Your task to perform on an android device: What's the price of the new iPhone on eBay? Image 0: 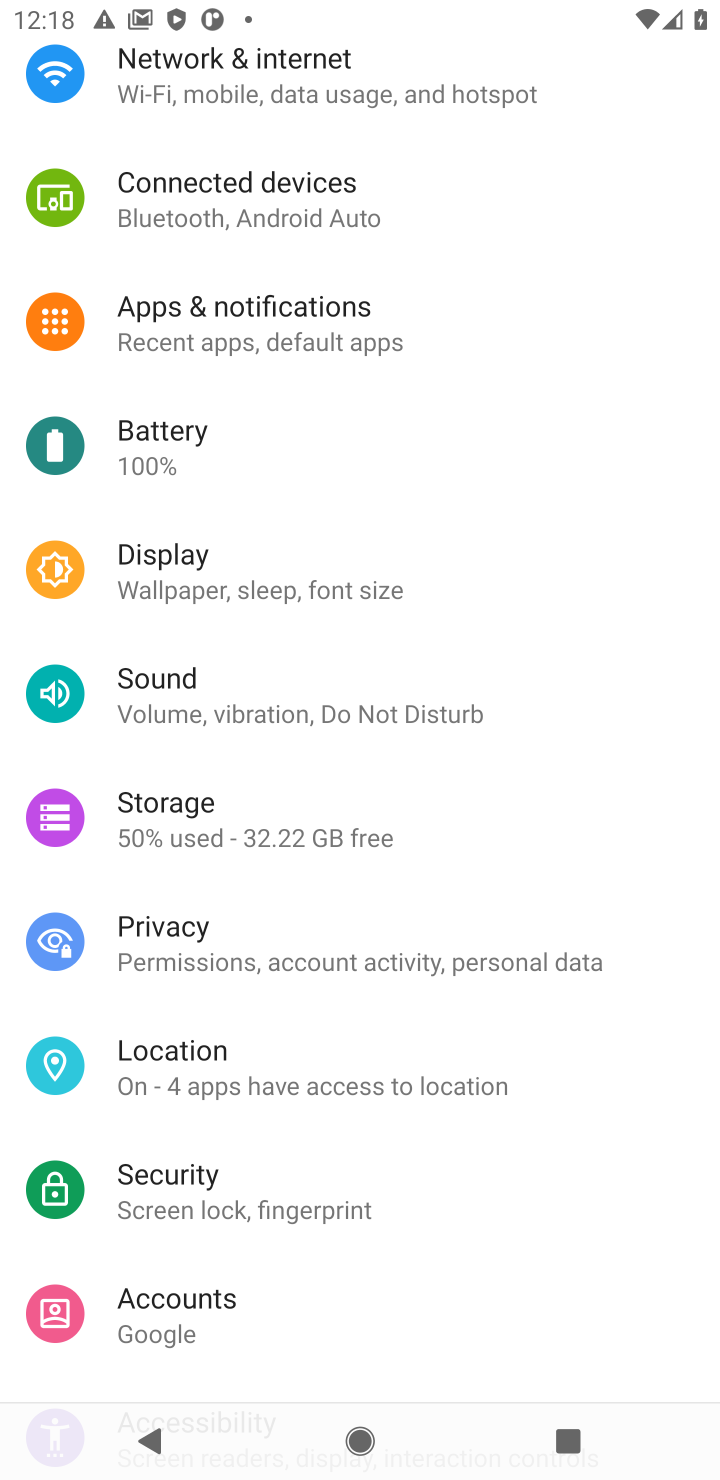
Step 0: press home button
Your task to perform on an android device: What's the price of the new iPhone on eBay? Image 1: 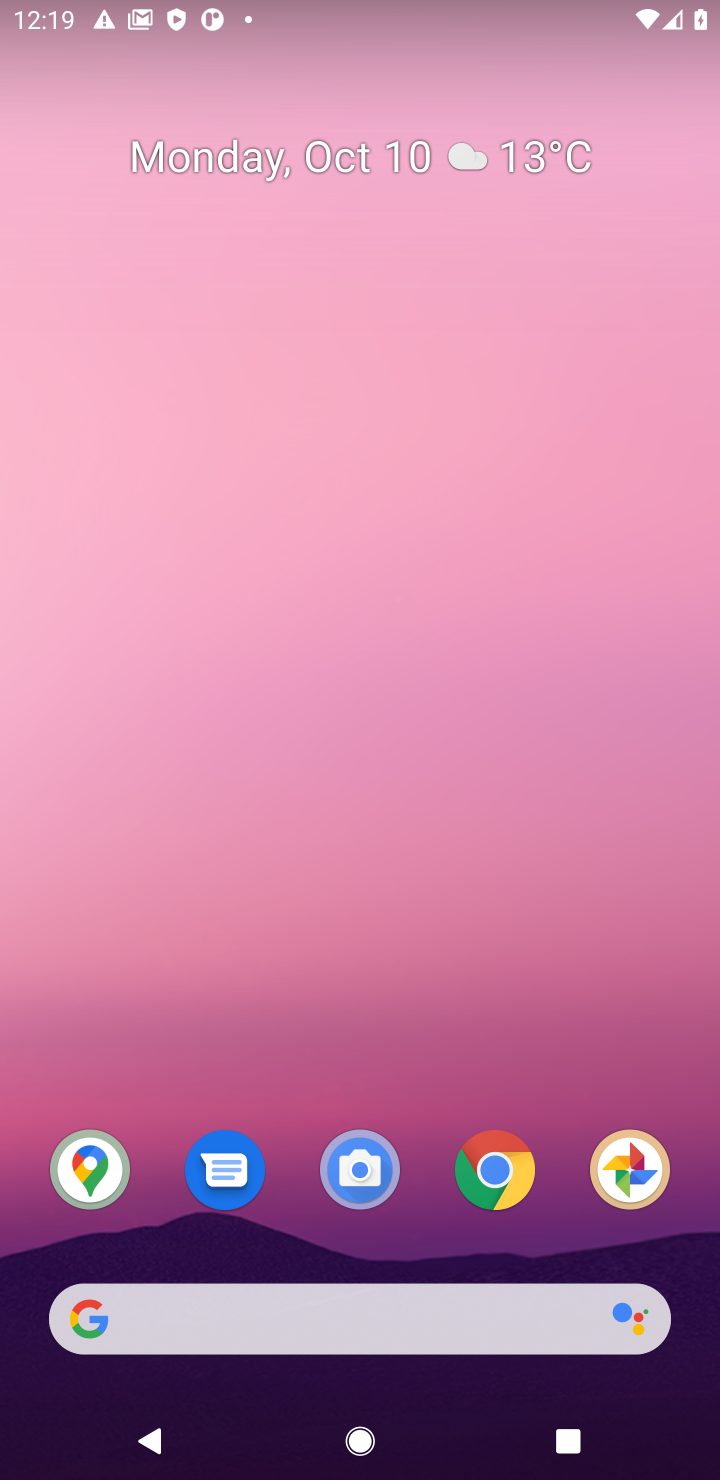
Step 1: click (498, 1171)
Your task to perform on an android device: What's the price of the new iPhone on eBay? Image 2: 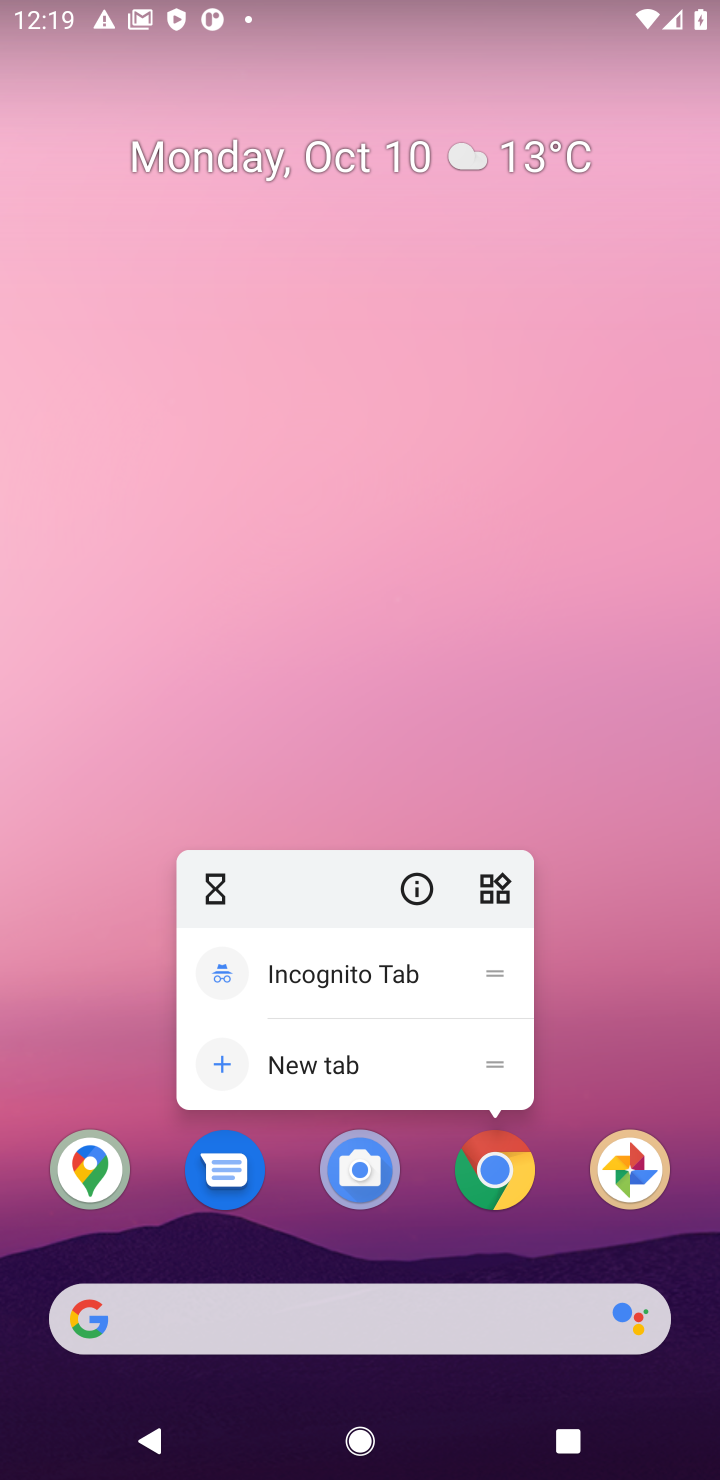
Step 2: click (498, 1171)
Your task to perform on an android device: What's the price of the new iPhone on eBay? Image 3: 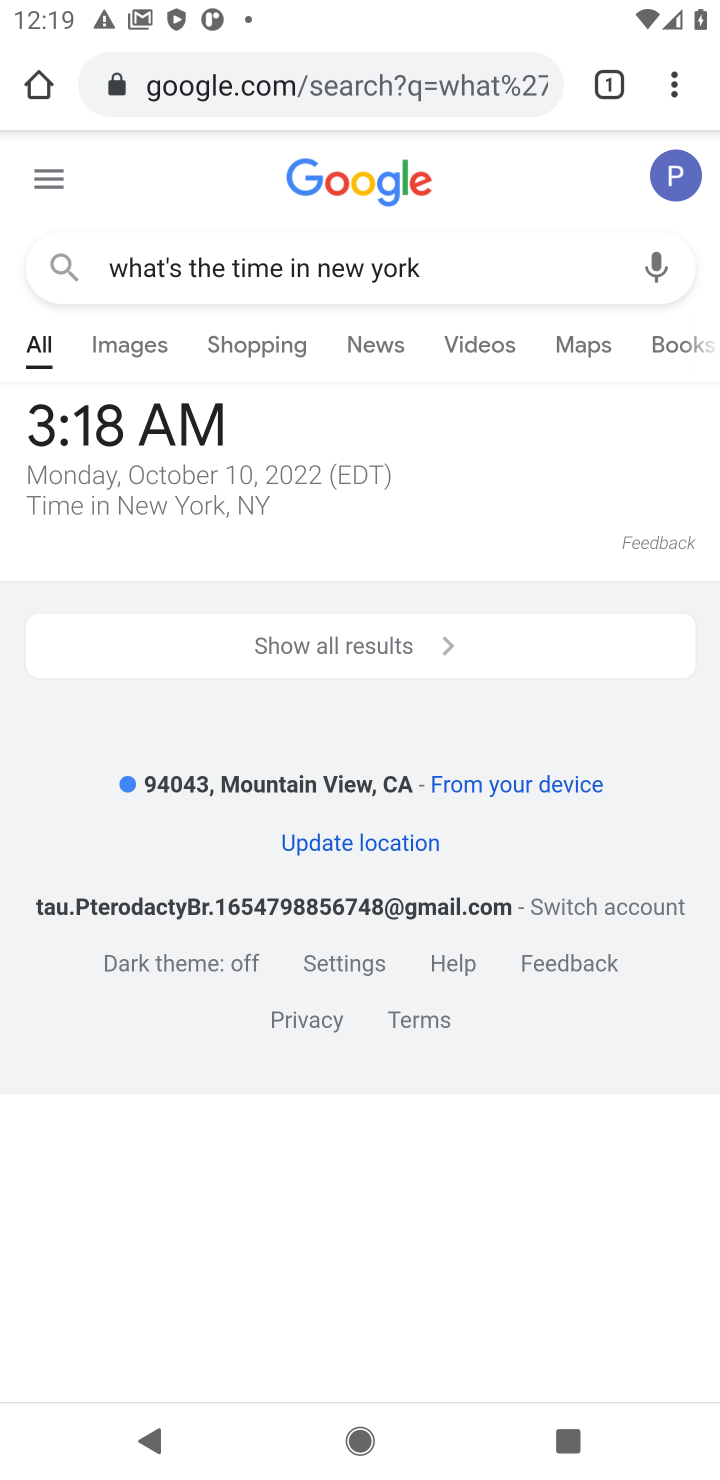
Step 3: click (424, 85)
Your task to perform on an android device: What's the price of the new iPhone on eBay? Image 4: 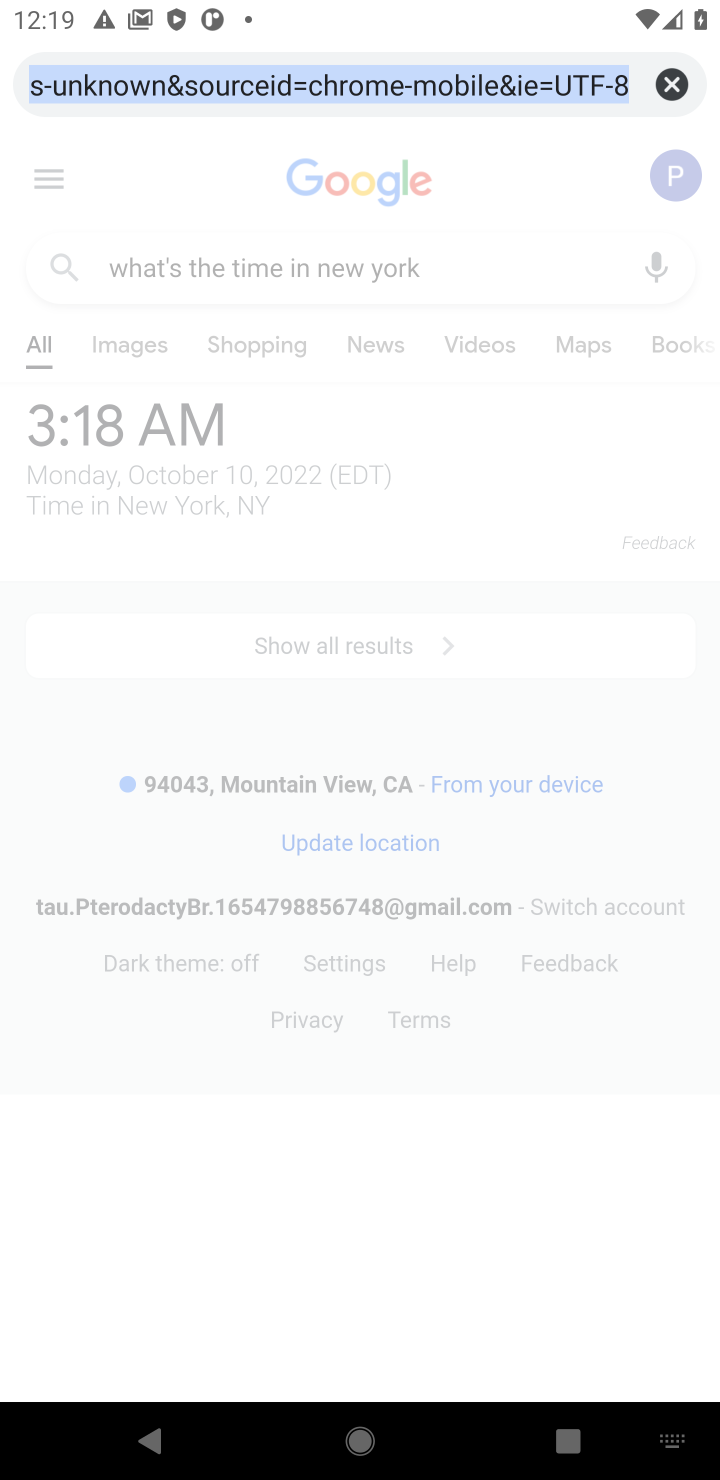
Step 4: click (673, 86)
Your task to perform on an android device: What's the price of the new iPhone on eBay? Image 5: 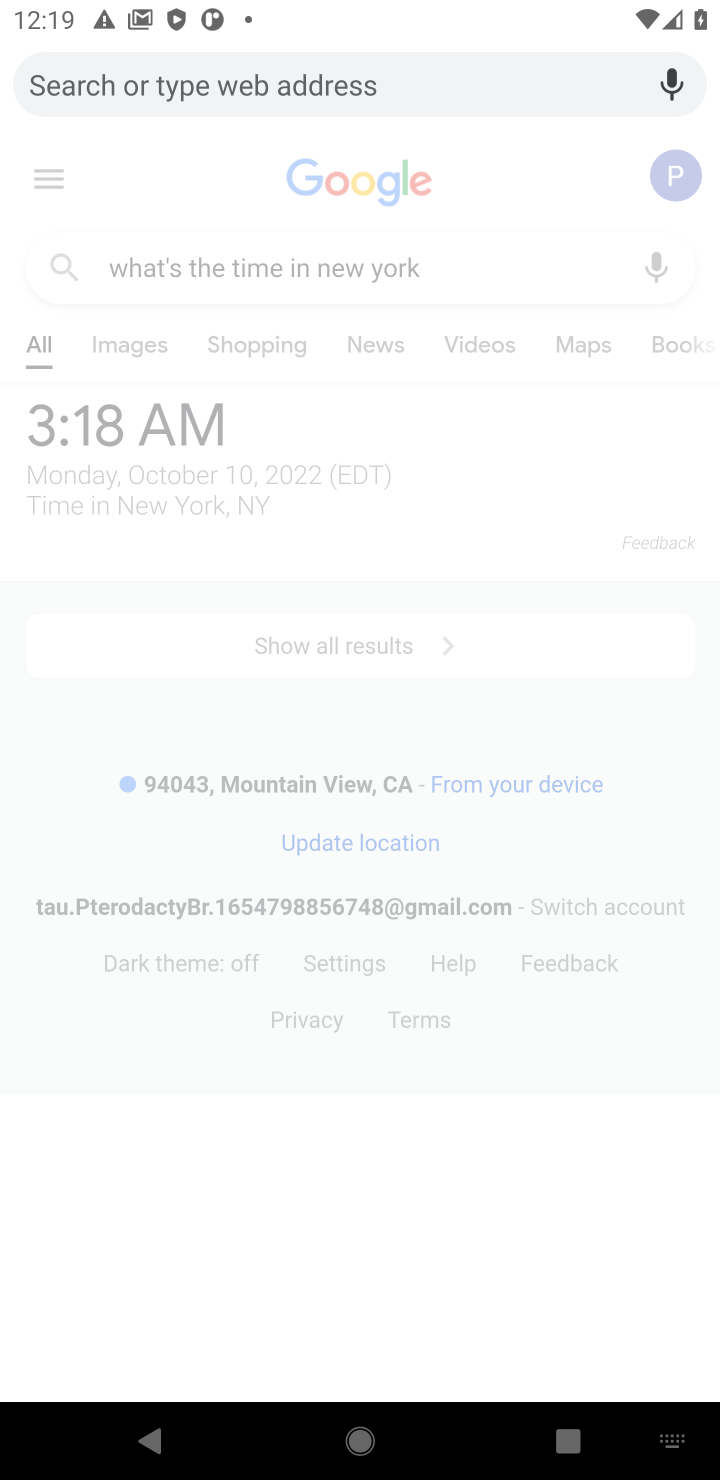
Step 5: type "eBay"
Your task to perform on an android device: What's the price of the new iPhone on eBay? Image 6: 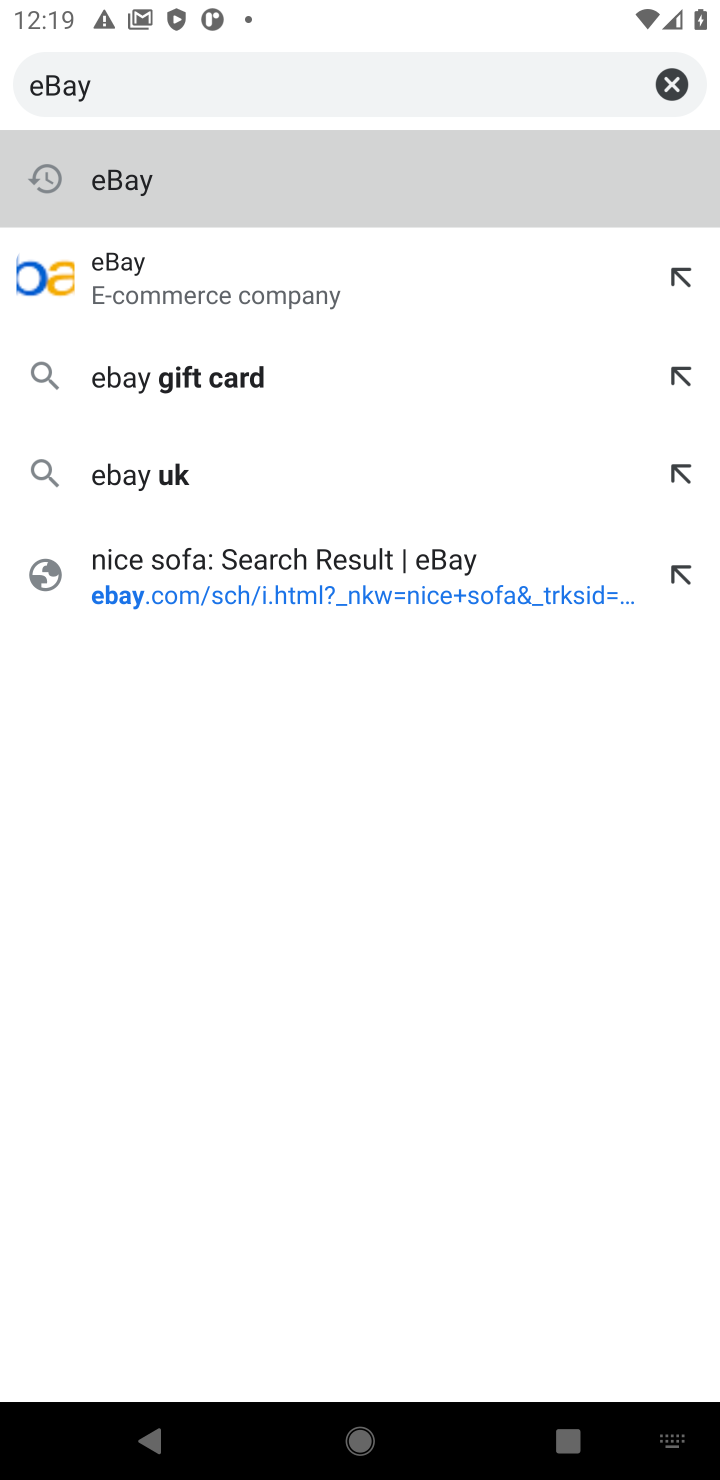
Step 6: click (169, 172)
Your task to perform on an android device: What's the price of the new iPhone on eBay? Image 7: 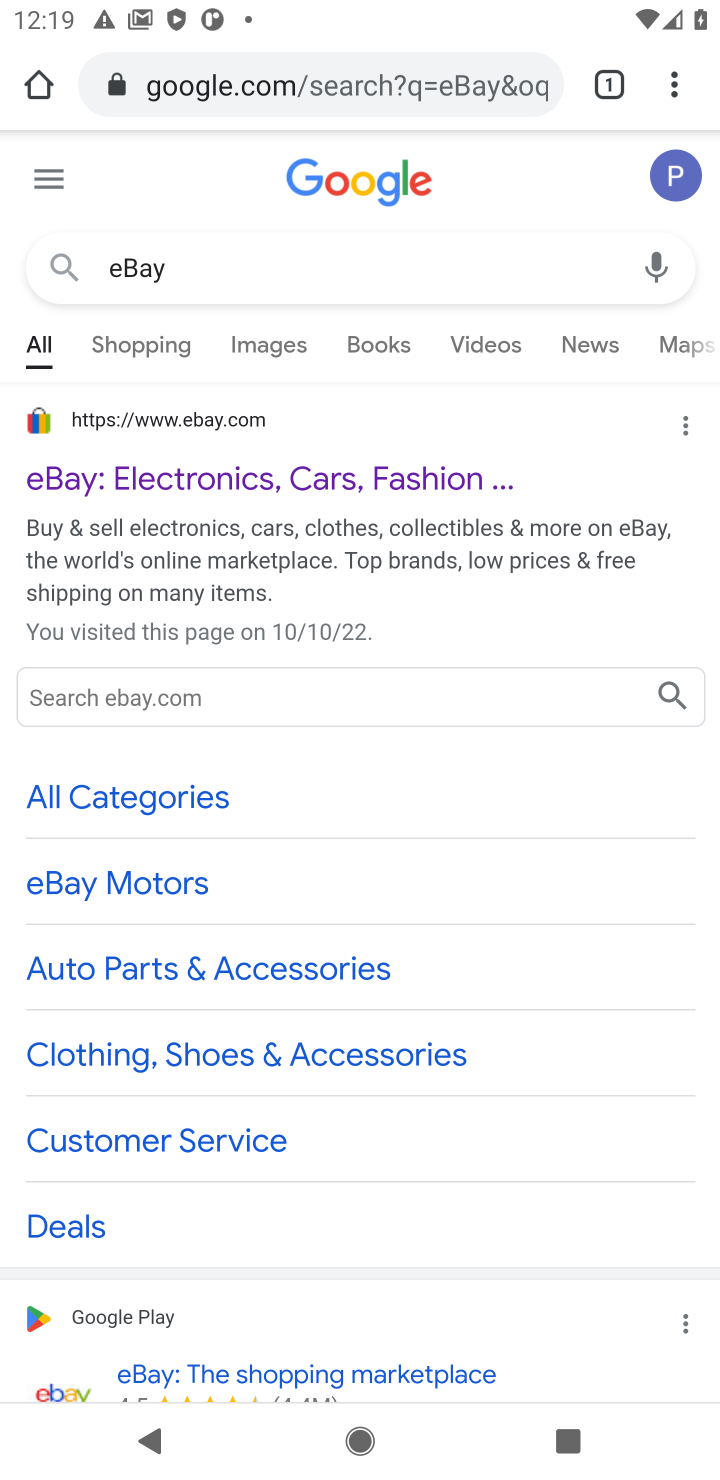
Step 7: click (255, 474)
Your task to perform on an android device: What's the price of the new iPhone on eBay? Image 8: 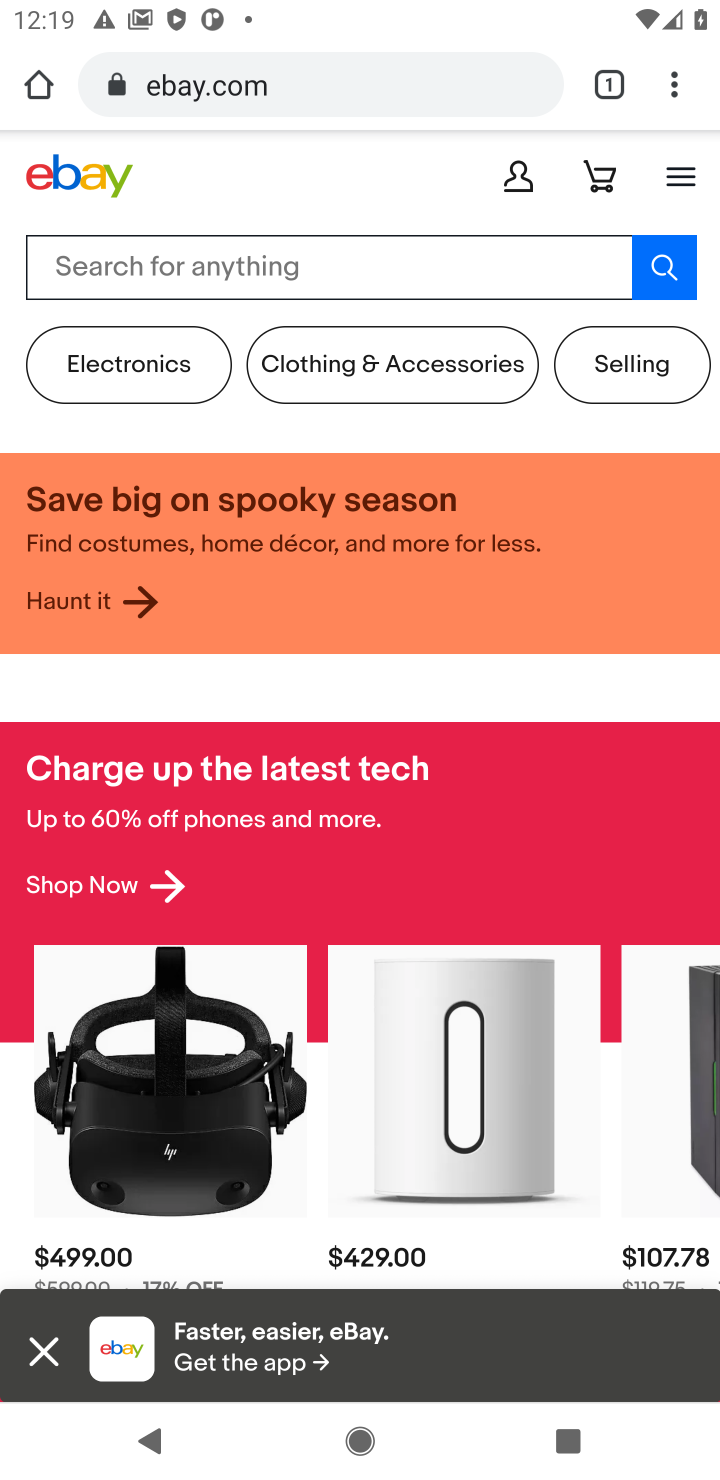
Step 8: click (254, 269)
Your task to perform on an android device: What's the price of the new iPhone on eBay? Image 9: 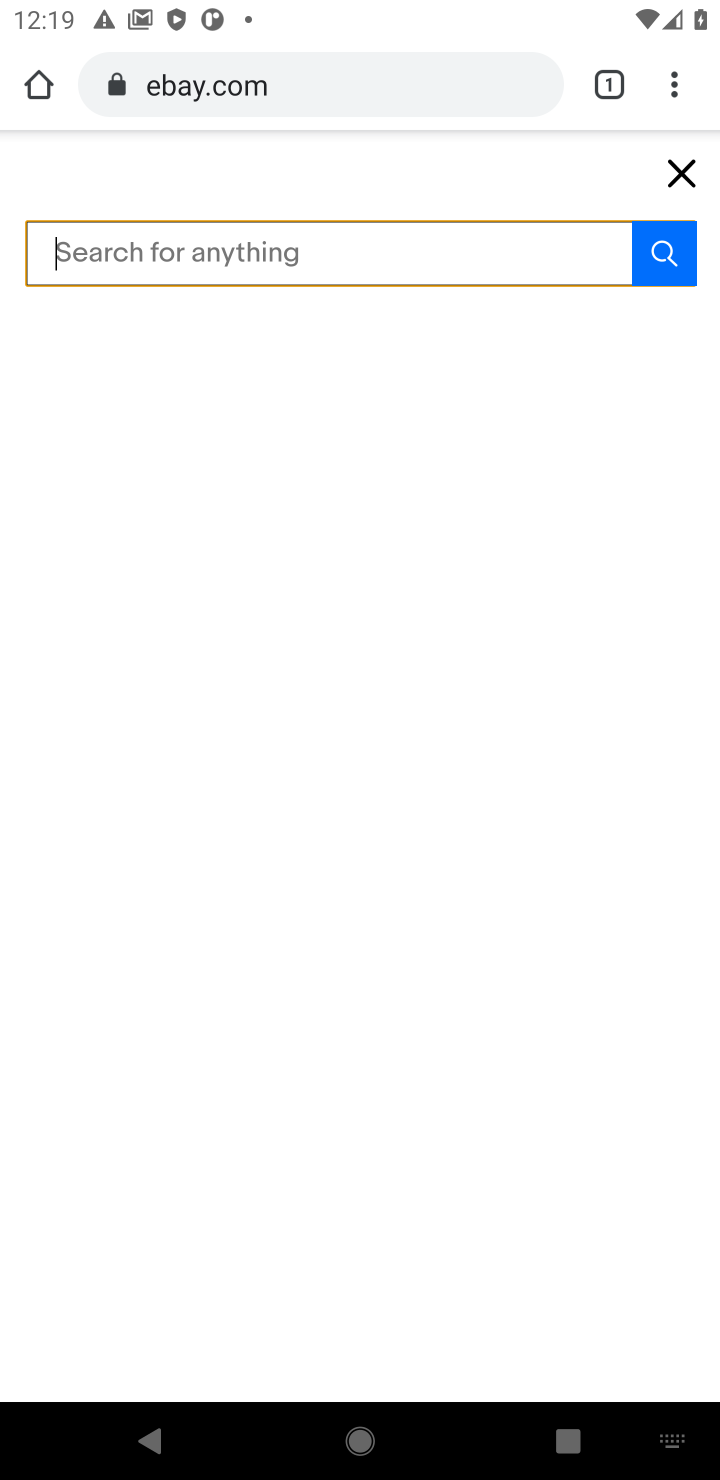
Step 9: type "new iphone"
Your task to perform on an android device: What's the price of the new iPhone on eBay? Image 10: 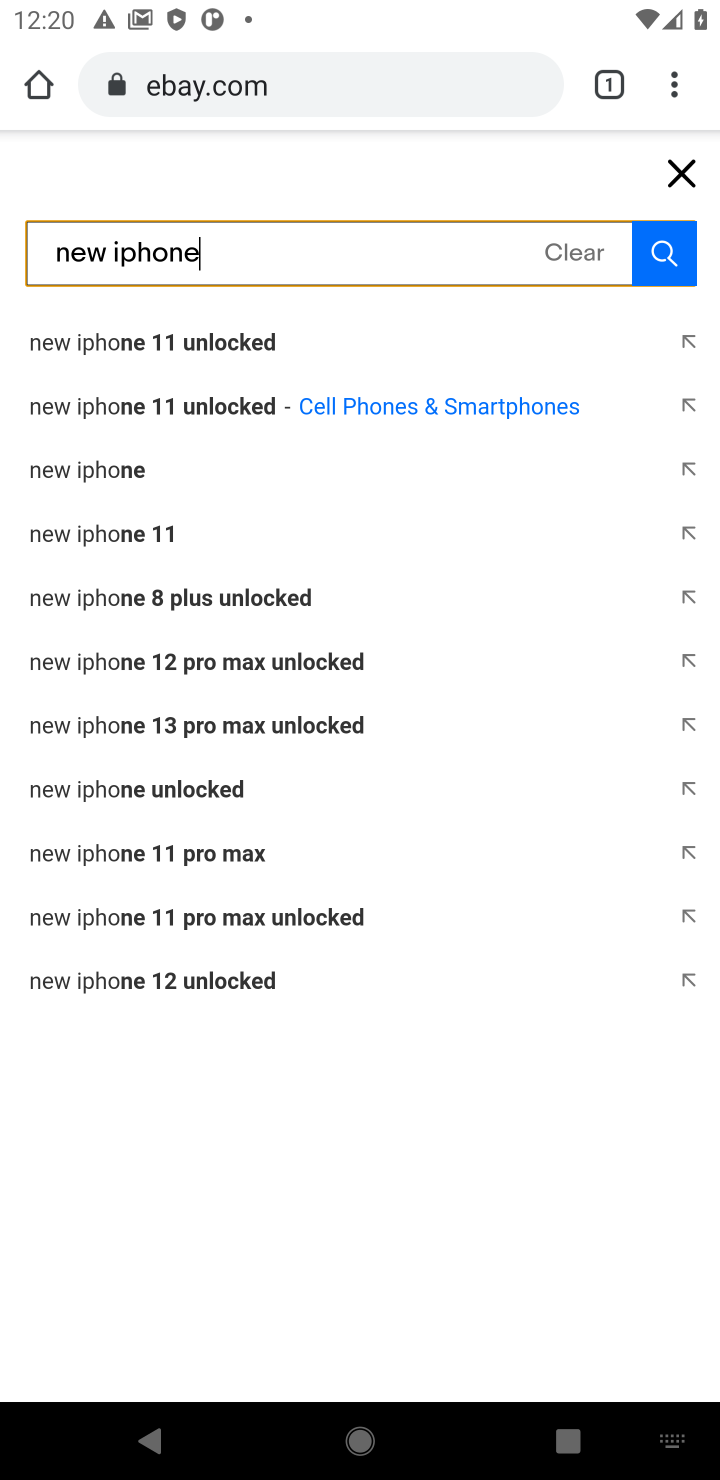
Step 10: click (651, 264)
Your task to perform on an android device: What's the price of the new iPhone on eBay? Image 11: 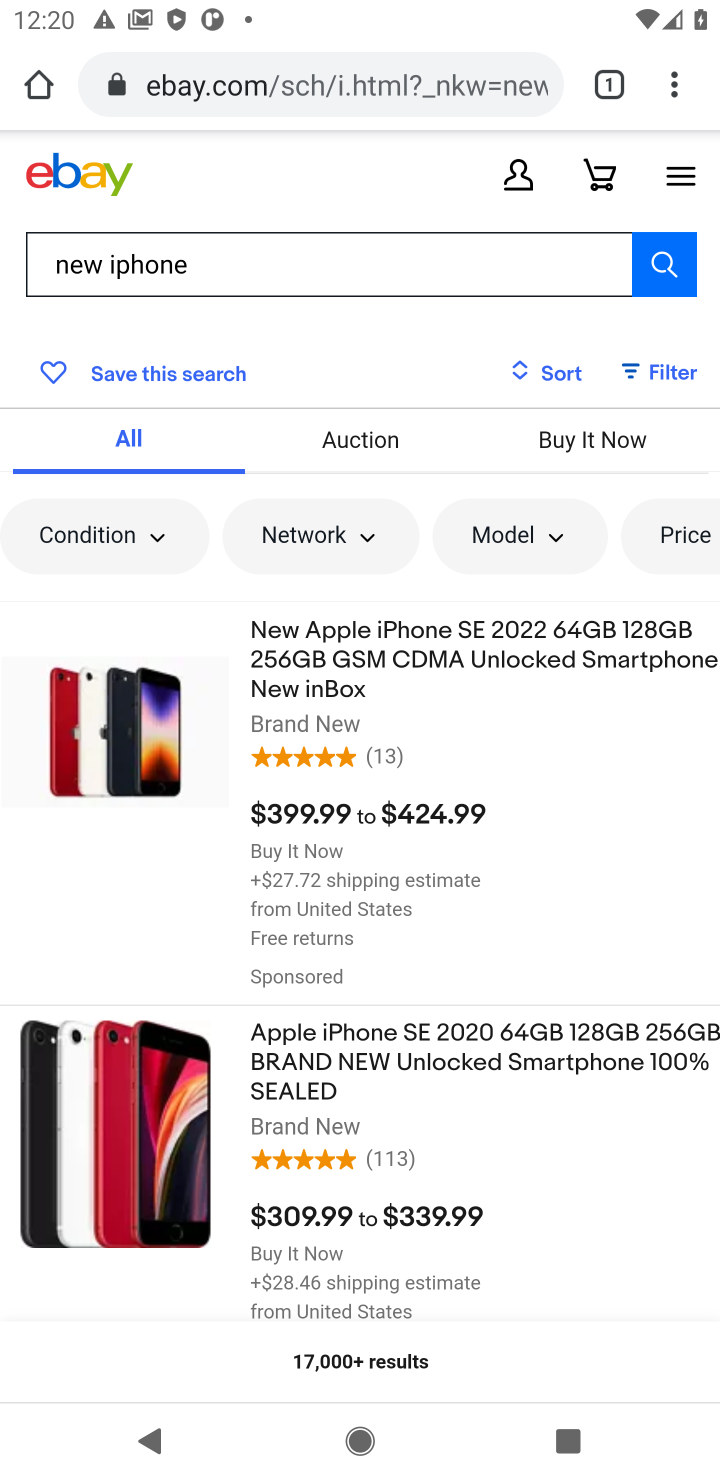
Step 11: task complete